Your task to perform on an android device: turn off improve location accuracy Image 0: 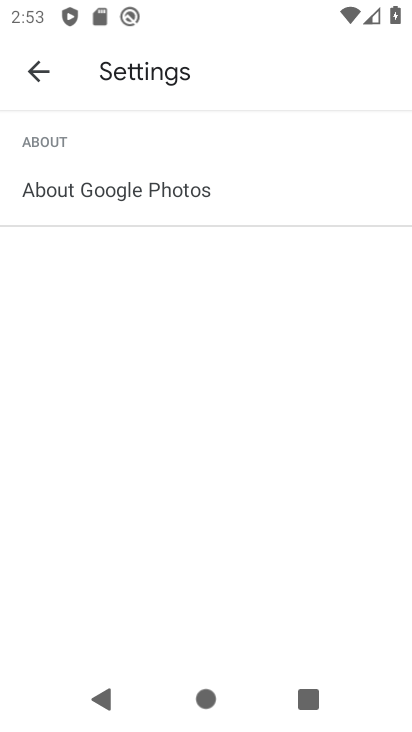
Step 0: press home button
Your task to perform on an android device: turn off improve location accuracy Image 1: 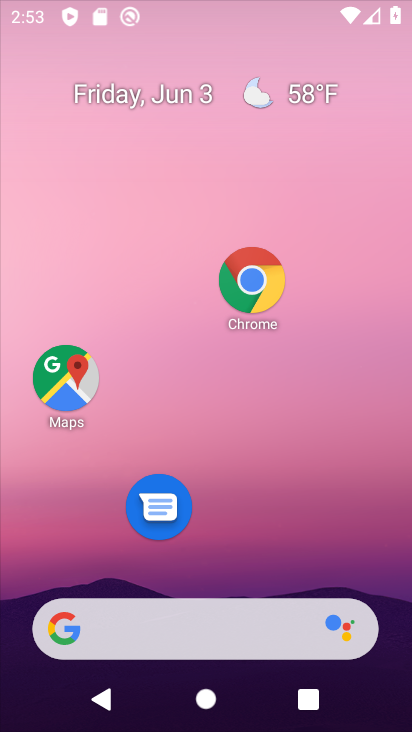
Step 1: drag from (253, 559) to (348, 41)
Your task to perform on an android device: turn off improve location accuracy Image 2: 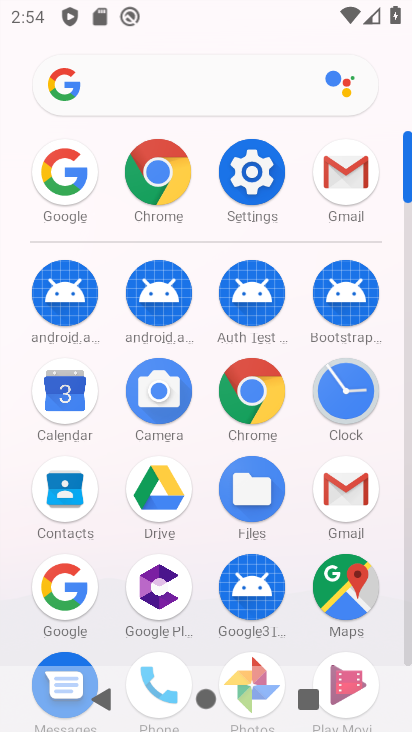
Step 2: click (258, 171)
Your task to perform on an android device: turn off improve location accuracy Image 3: 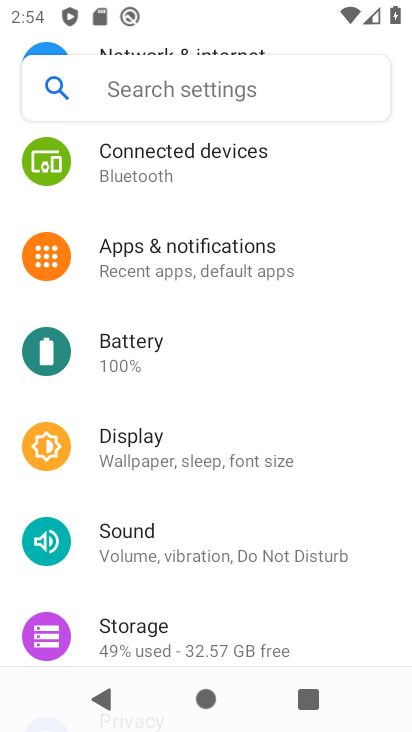
Step 3: drag from (190, 543) to (205, 94)
Your task to perform on an android device: turn off improve location accuracy Image 4: 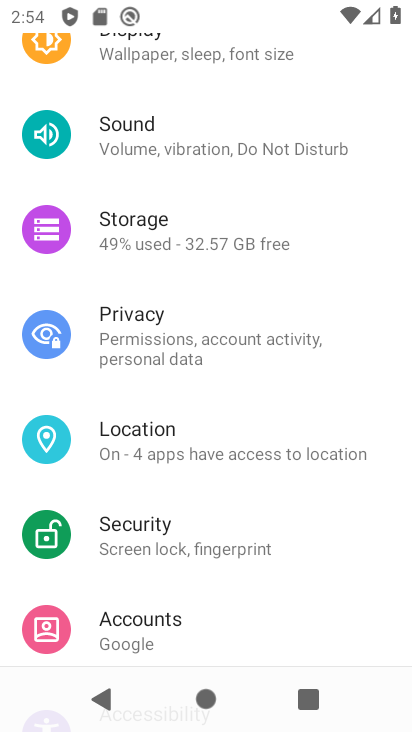
Step 4: click (105, 435)
Your task to perform on an android device: turn off improve location accuracy Image 5: 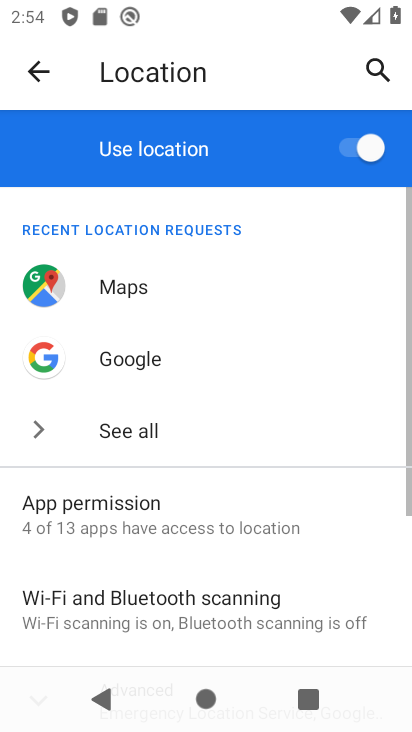
Step 5: drag from (210, 610) to (237, 279)
Your task to perform on an android device: turn off improve location accuracy Image 6: 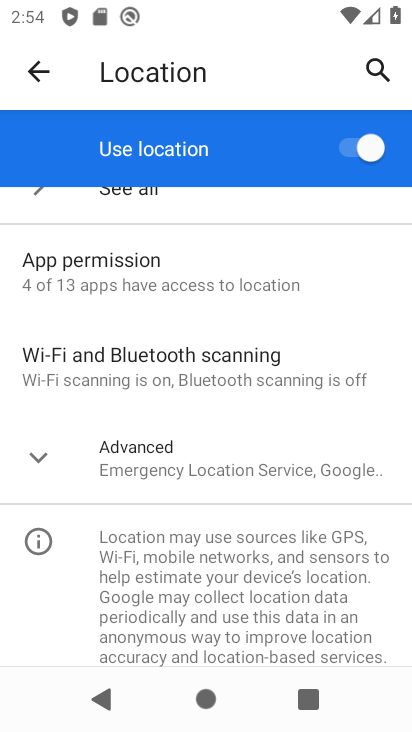
Step 6: click (128, 473)
Your task to perform on an android device: turn off improve location accuracy Image 7: 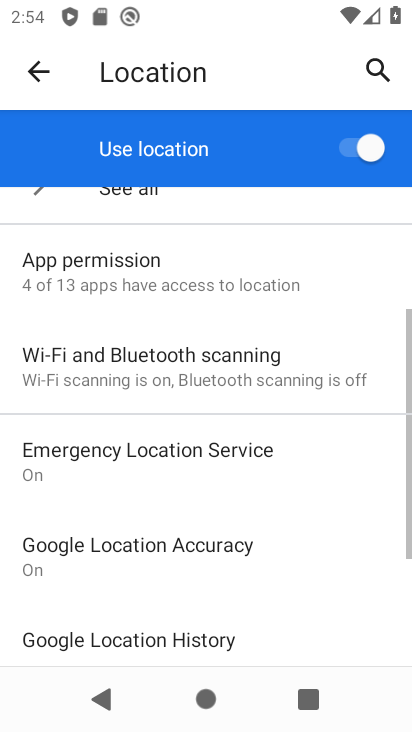
Step 7: click (198, 553)
Your task to perform on an android device: turn off improve location accuracy Image 8: 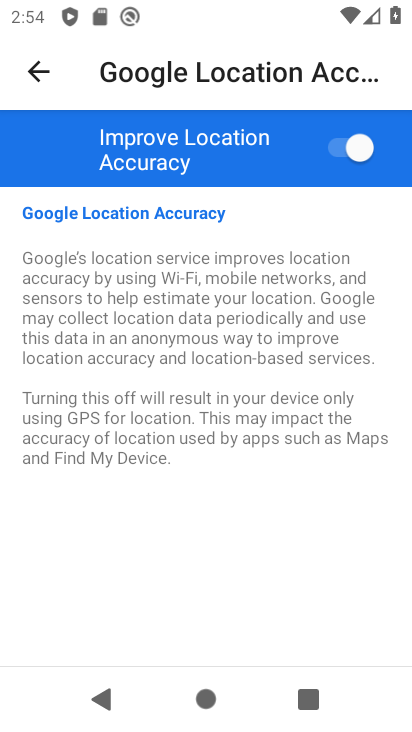
Step 8: click (365, 145)
Your task to perform on an android device: turn off improve location accuracy Image 9: 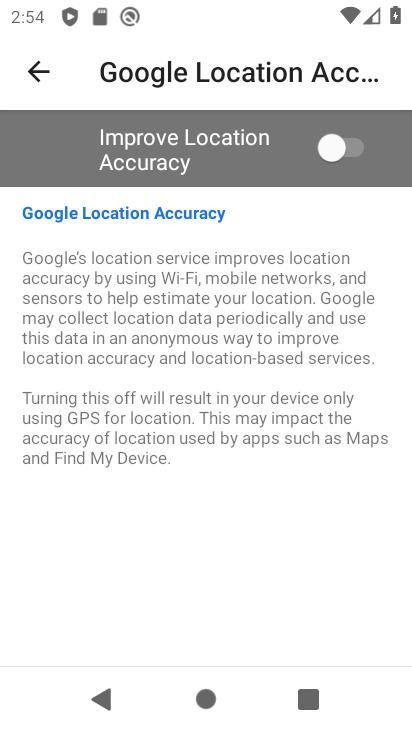
Step 9: task complete